Your task to perform on an android device: Go to Google Image 0: 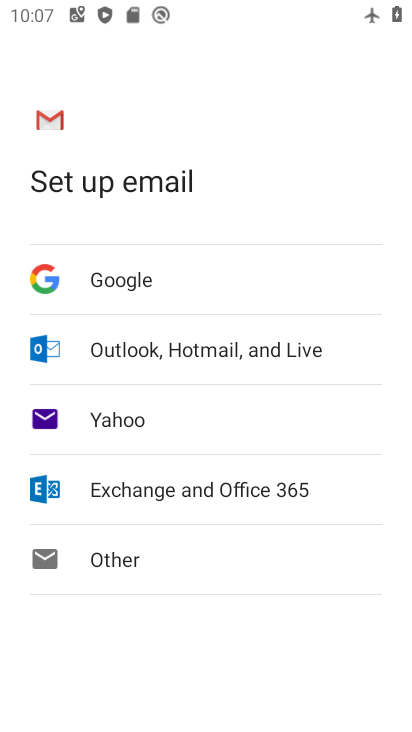
Step 0: press back button
Your task to perform on an android device: Go to Google Image 1: 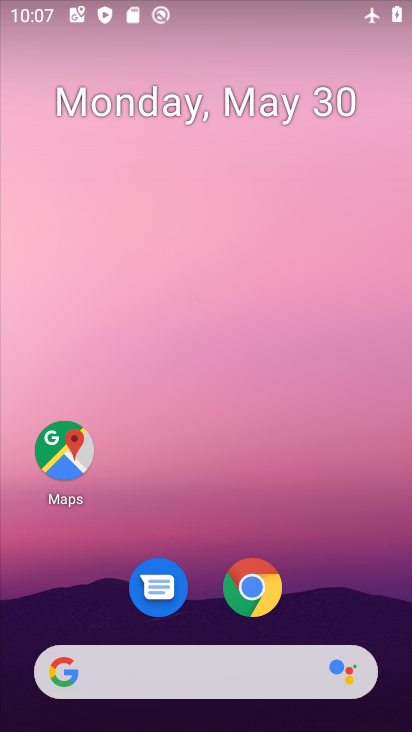
Step 1: drag from (367, 571) to (260, 25)
Your task to perform on an android device: Go to Google Image 2: 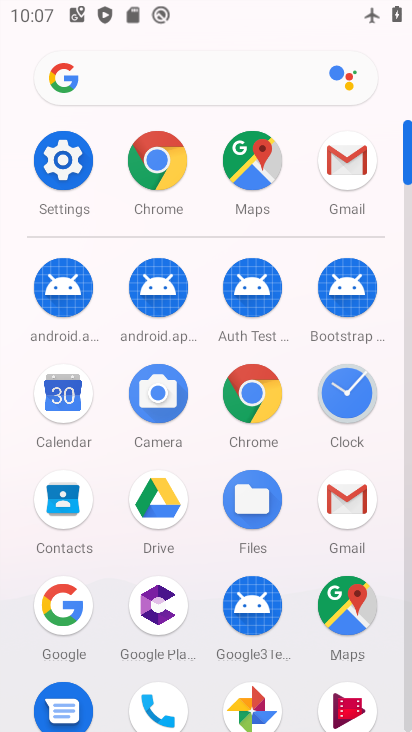
Step 2: click (159, 159)
Your task to perform on an android device: Go to Google Image 3: 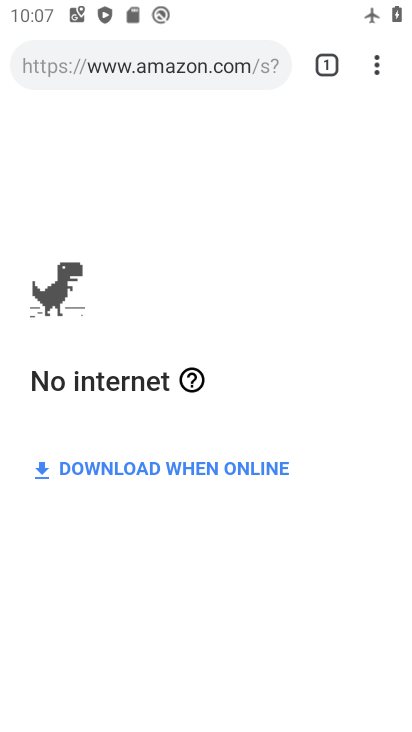
Step 3: click (158, 59)
Your task to perform on an android device: Go to Google Image 4: 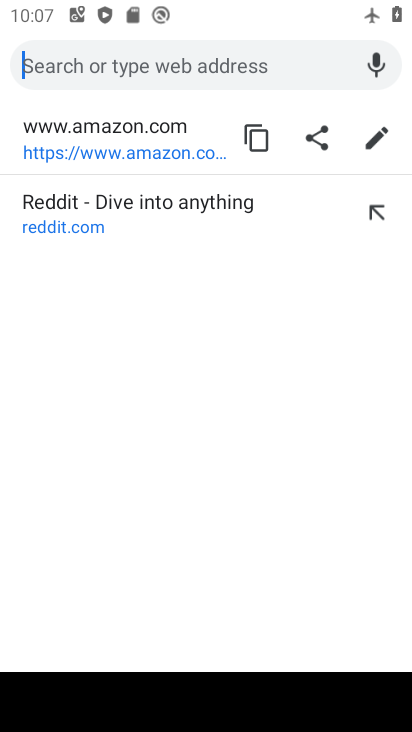
Step 4: type "Google"
Your task to perform on an android device: Go to Google Image 5: 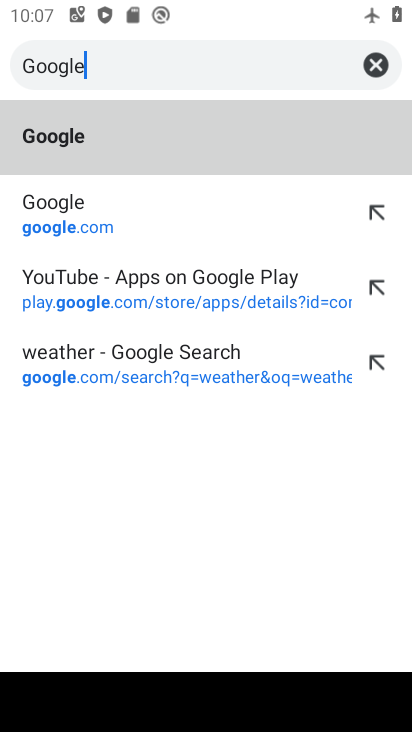
Step 5: type ""
Your task to perform on an android device: Go to Google Image 6: 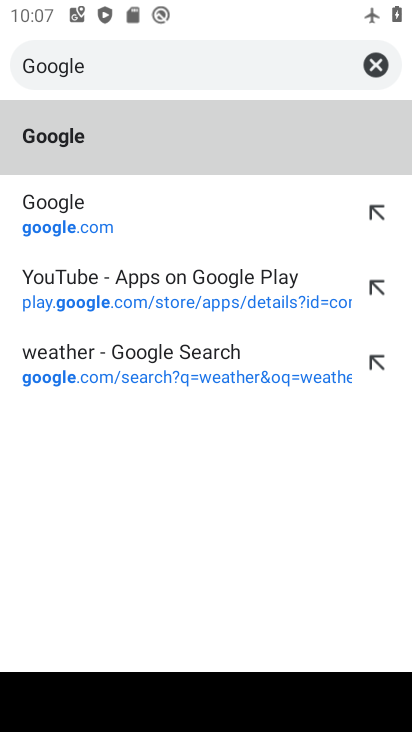
Step 6: click (73, 219)
Your task to perform on an android device: Go to Google Image 7: 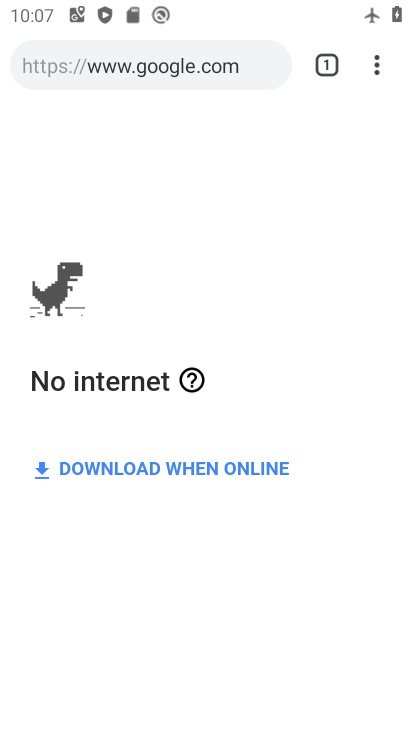
Step 7: task complete